Your task to perform on an android device: toggle pop-ups in chrome Image 0: 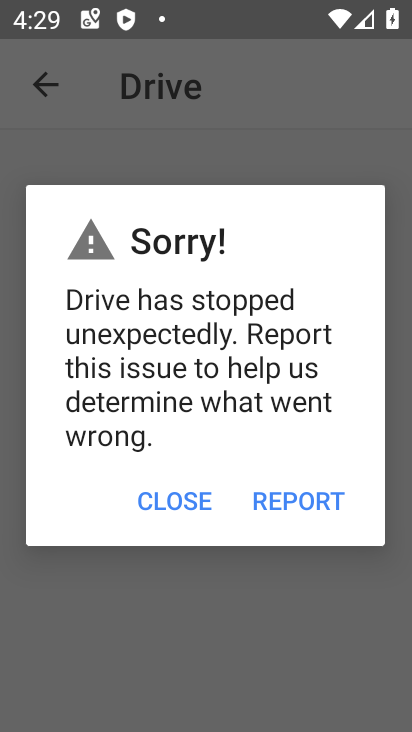
Step 0: press home button
Your task to perform on an android device: toggle pop-ups in chrome Image 1: 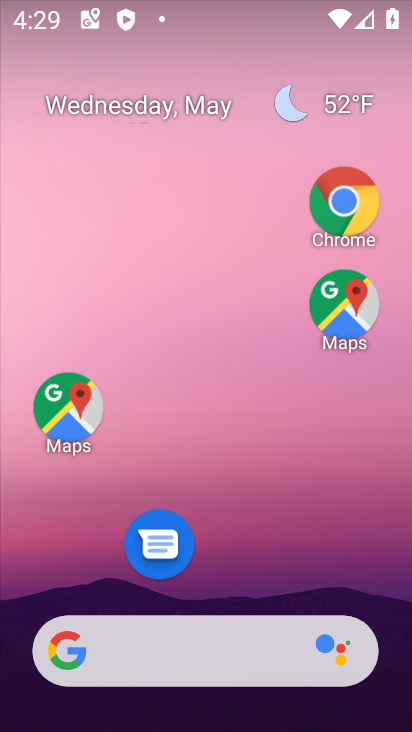
Step 1: drag from (272, 576) to (248, 242)
Your task to perform on an android device: toggle pop-ups in chrome Image 2: 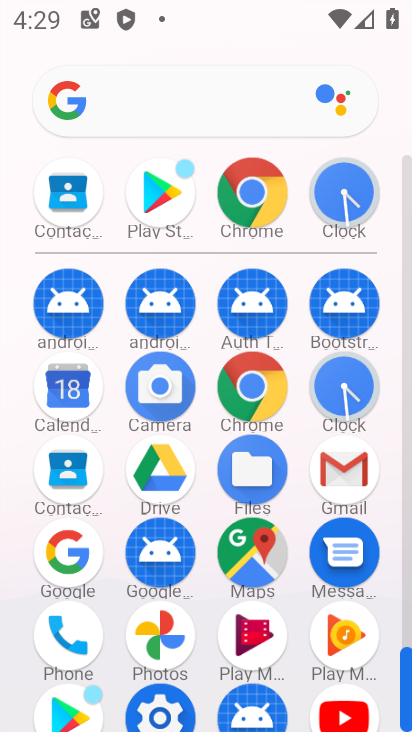
Step 2: click (258, 391)
Your task to perform on an android device: toggle pop-ups in chrome Image 3: 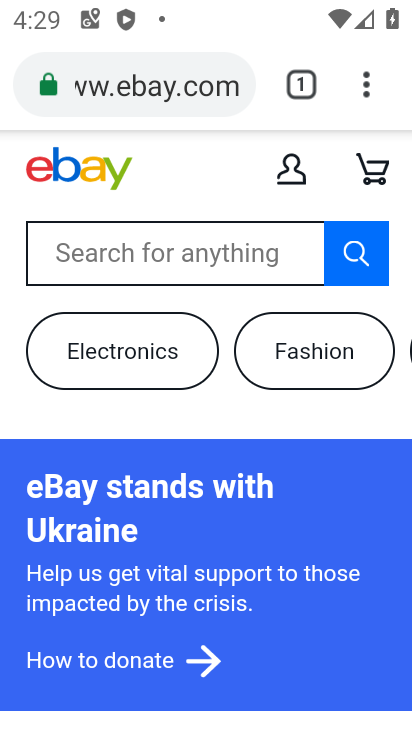
Step 3: click (367, 90)
Your task to perform on an android device: toggle pop-ups in chrome Image 4: 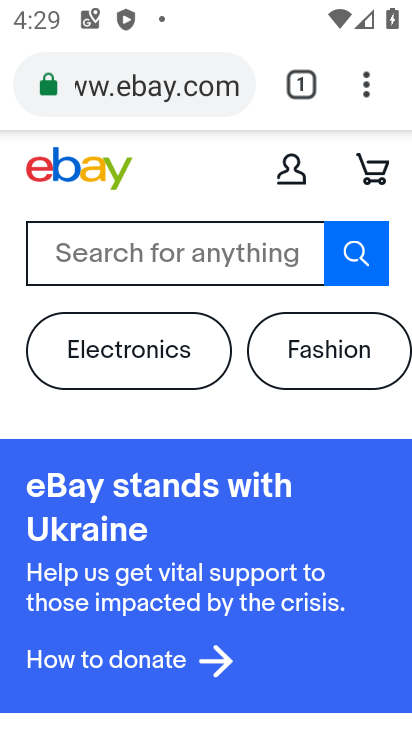
Step 4: click (363, 85)
Your task to perform on an android device: toggle pop-ups in chrome Image 5: 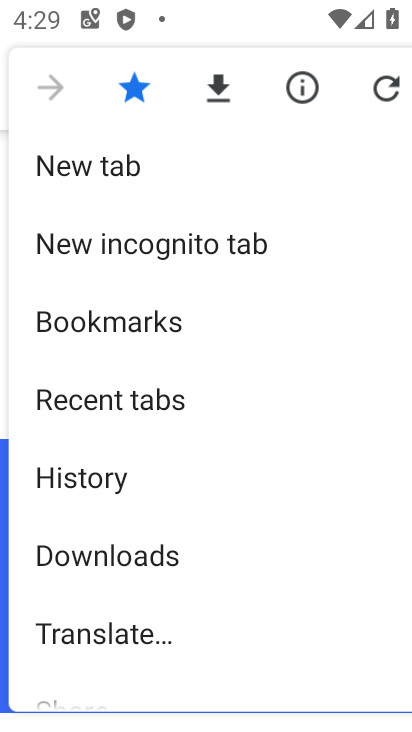
Step 5: drag from (145, 578) to (190, 297)
Your task to perform on an android device: toggle pop-ups in chrome Image 6: 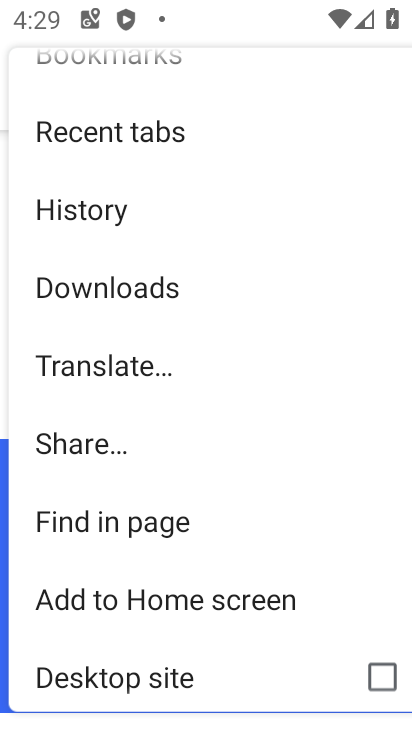
Step 6: drag from (150, 639) to (239, 340)
Your task to perform on an android device: toggle pop-ups in chrome Image 7: 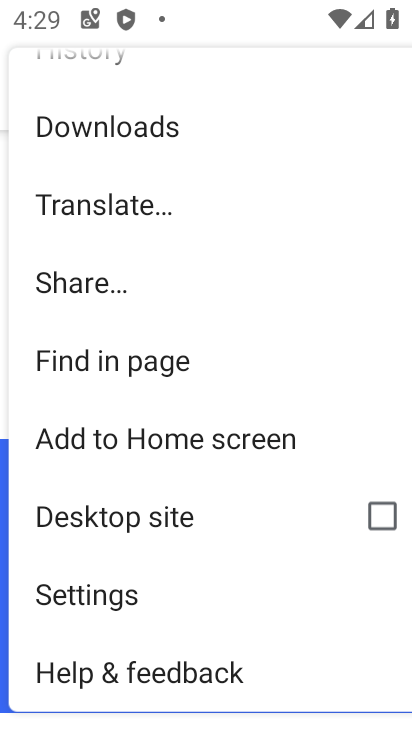
Step 7: click (106, 611)
Your task to perform on an android device: toggle pop-ups in chrome Image 8: 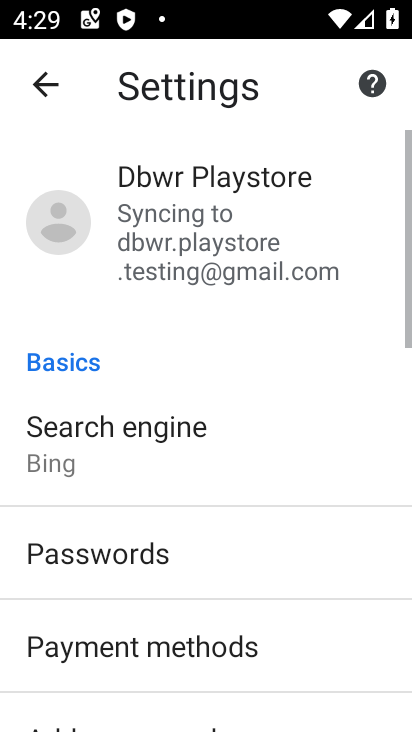
Step 8: drag from (112, 605) to (173, 276)
Your task to perform on an android device: toggle pop-ups in chrome Image 9: 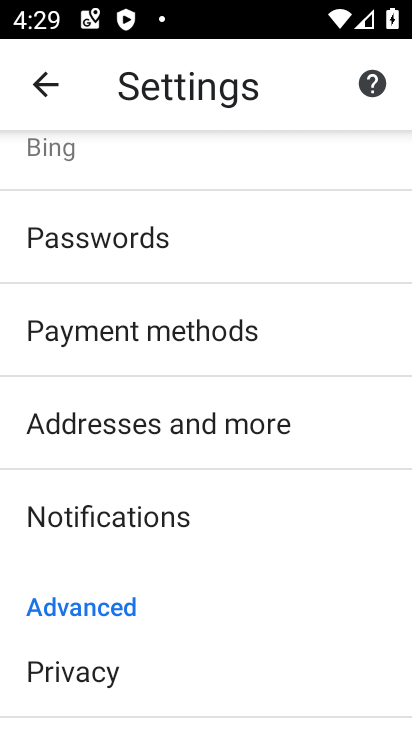
Step 9: drag from (139, 655) to (203, 341)
Your task to perform on an android device: toggle pop-ups in chrome Image 10: 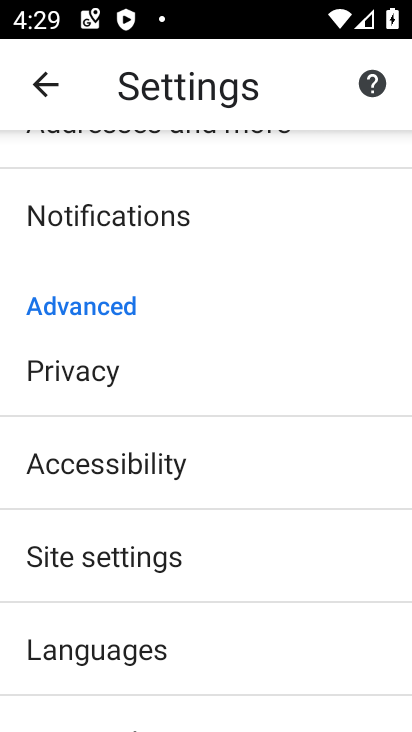
Step 10: click (121, 552)
Your task to perform on an android device: toggle pop-ups in chrome Image 11: 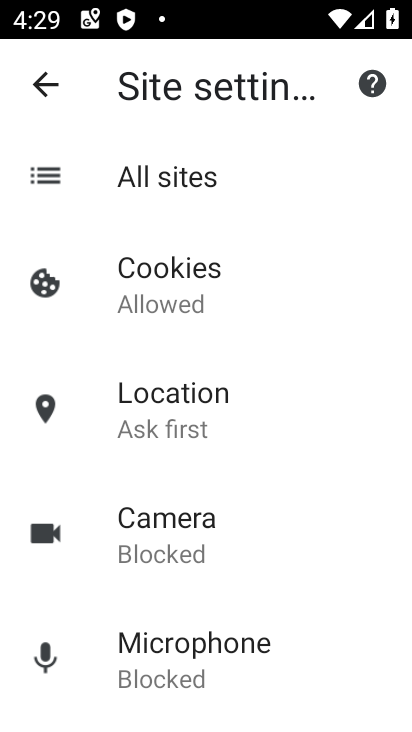
Step 11: drag from (168, 620) to (221, 270)
Your task to perform on an android device: toggle pop-ups in chrome Image 12: 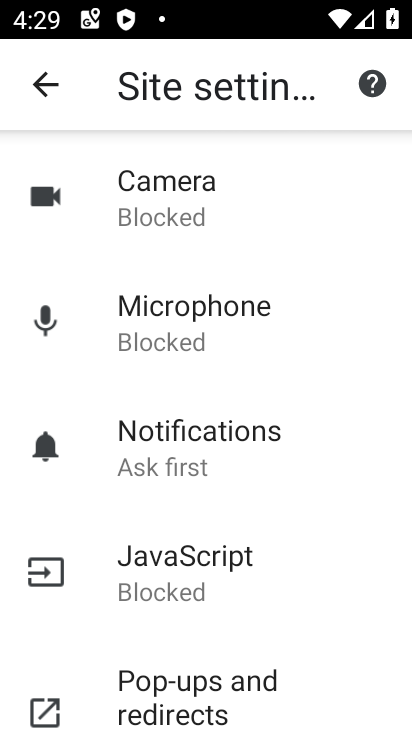
Step 12: drag from (213, 529) to (260, 334)
Your task to perform on an android device: toggle pop-ups in chrome Image 13: 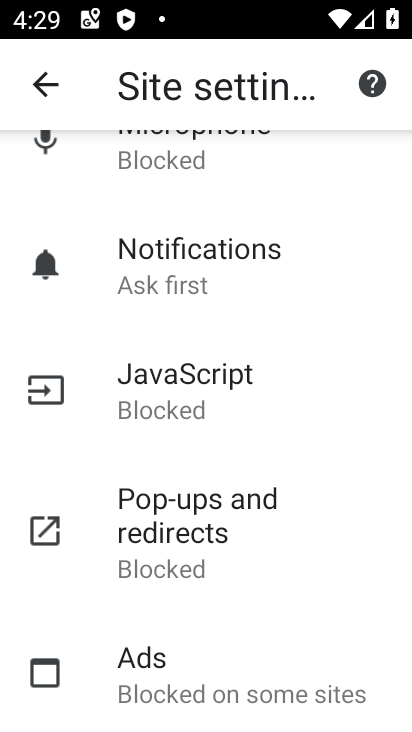
Step 13: click (207, 497)
Your task to perform on an android device: toggle pop-ups in chrome Image 14: 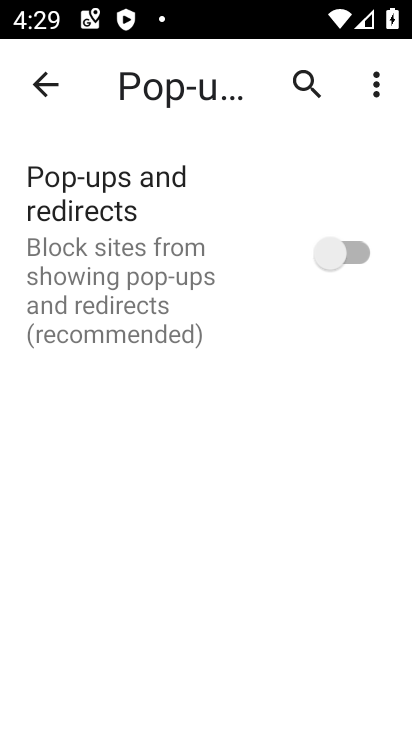
Step 14: click (361, 252)
Your task to perform on an android device: toggle pop-ups in chrome Image 15: 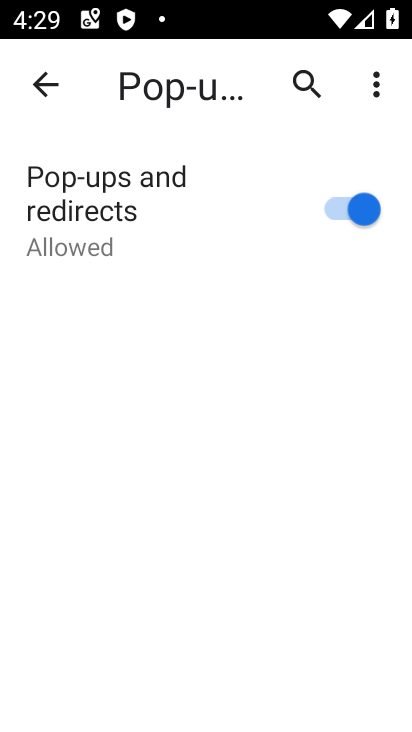
Step 15: task complete